Your task to perform on an android device: open sync settings in chrome Image 0: 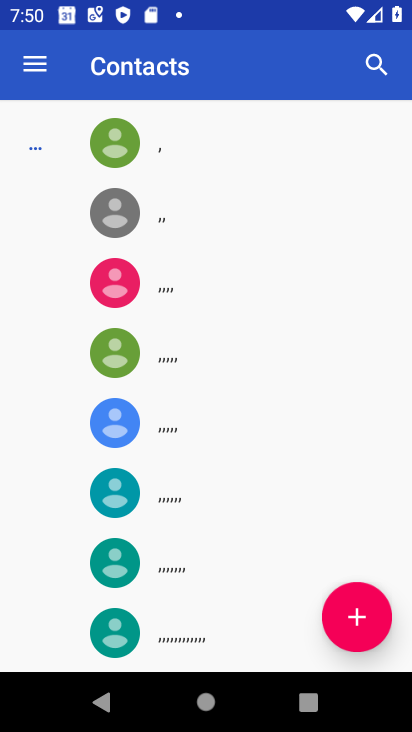
Step 0: press back button
Your task to perform on an android device: open sync settings in chrome Image 1: 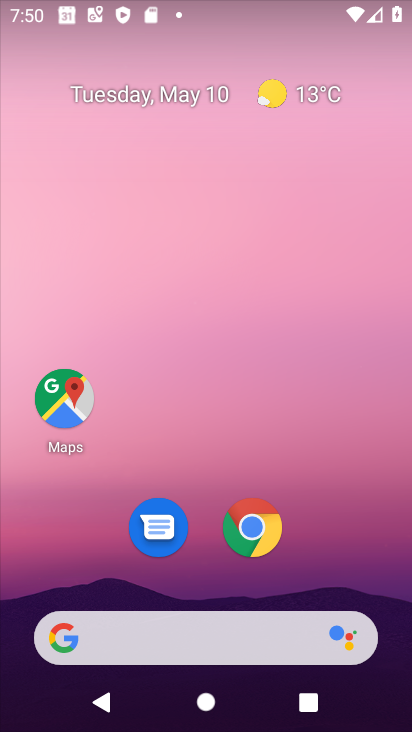
Step 1: click (241, 533)
Your task to perform on an android device: open sync settings in chrome Image 2: 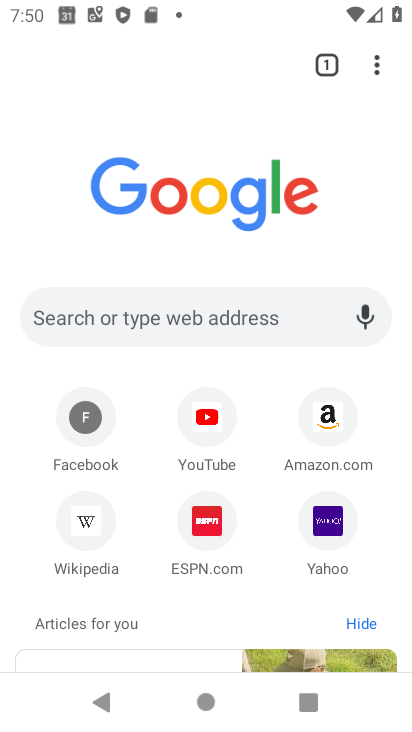
Step 2: click (378, 76)
Your task to perform on an android device: open sync settings in chrome Image 3: 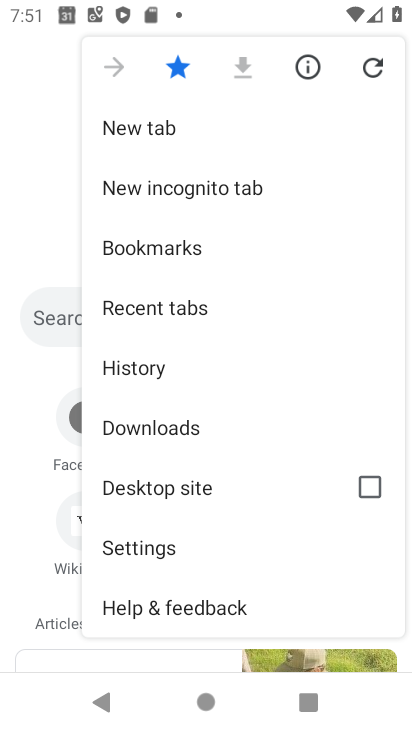
Step 3: click (179, 538)
Your task to perform on an android device: open sync settings in chrome Image 4: 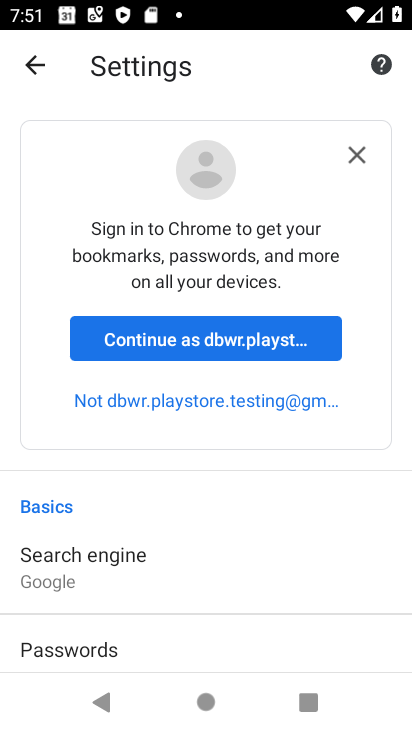
Step 4: click (359, 158)
Your task to perform on an android device: open sync settings in chrome Image 5: 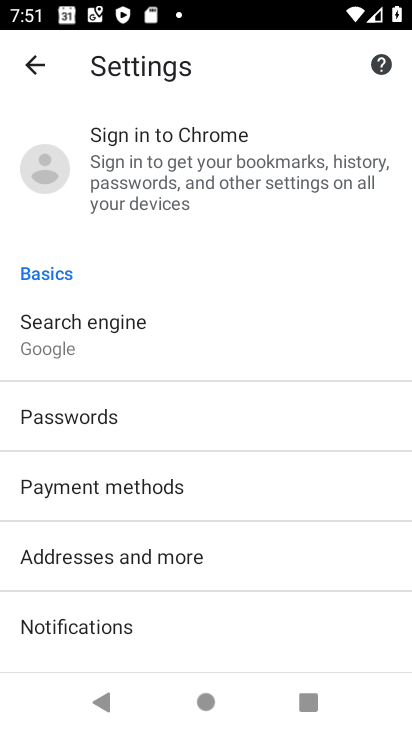
Step 5: drag from (168, 614) to (216, 140)
Your task to perform on an android device: open sync settings in chrome Image 6: 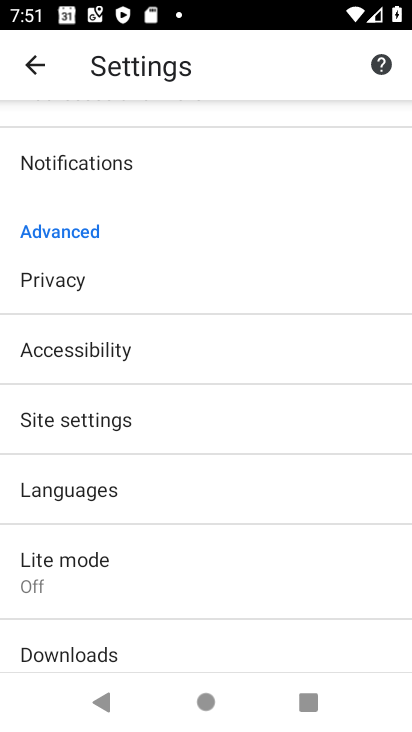
Step 6: drag from (142, 615) to (219, 141)
Your task to perform on an android device: open sync settings in chrome Image 7: 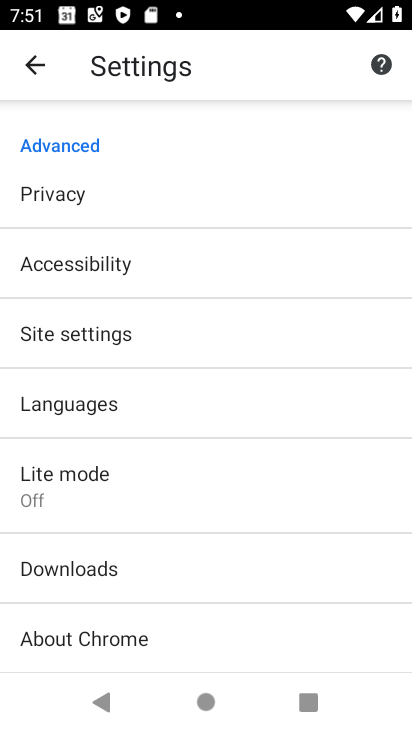
Step 7: click (85, 191)
Your task to perform on an android device: open sync settings in chrome Image 8: 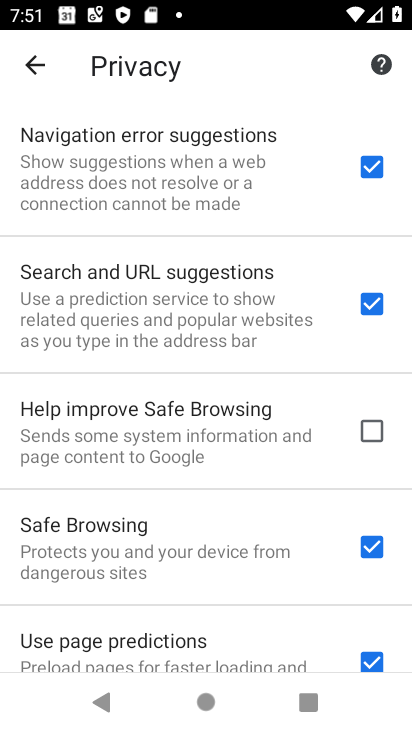
Step 8: drag from (181, 581) to (236, 128)
Your task to perform on an android device: open sync settings in chrome Image 9: 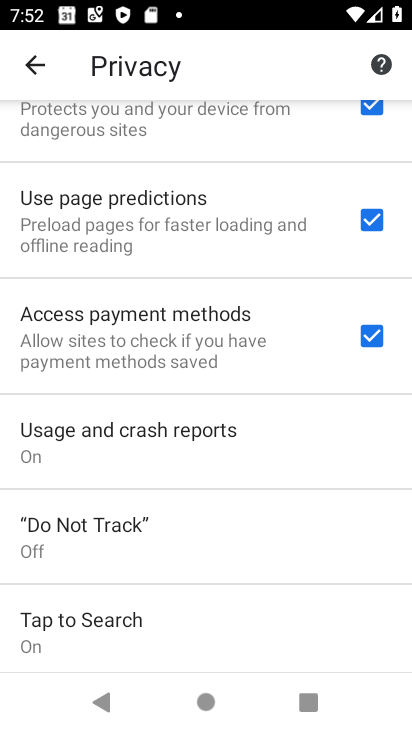
Step 9: drag from (114, 585) to (198, 179)
Your task to perform on an android device: open sync settings in chrome Image 10: 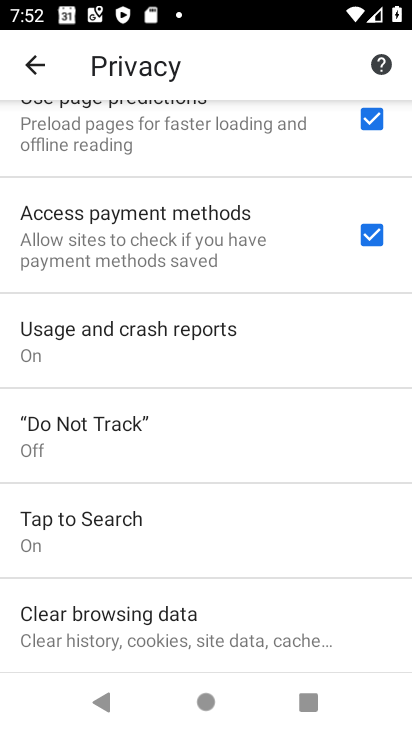
Step 10: drag from (219, 637) to (274, 251)
Your task to perform on an android device: open sync settings in chrome Image 11: 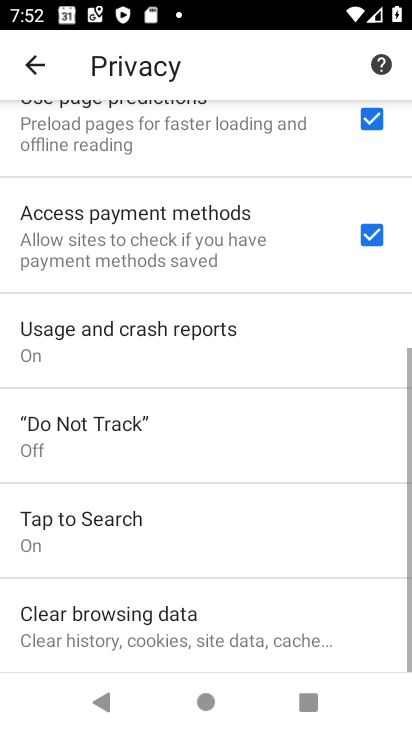
Step 11: press back button
Your task to perform on an android device: open sync settings in chrome Image 12: 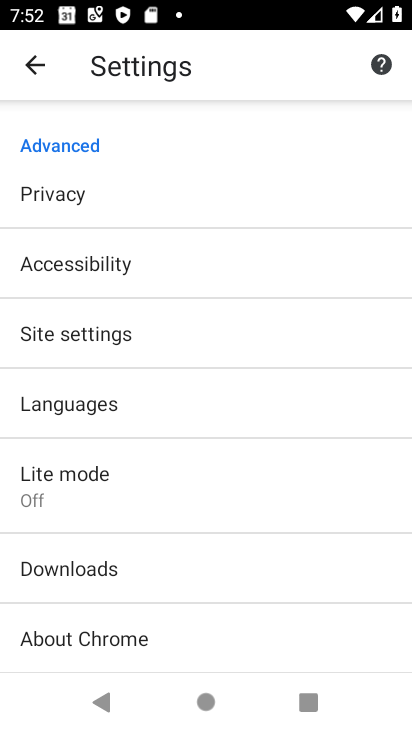
Step 12: click (77, 299)
Your task to perform on an android device: open sync settings in chrome Image 13: 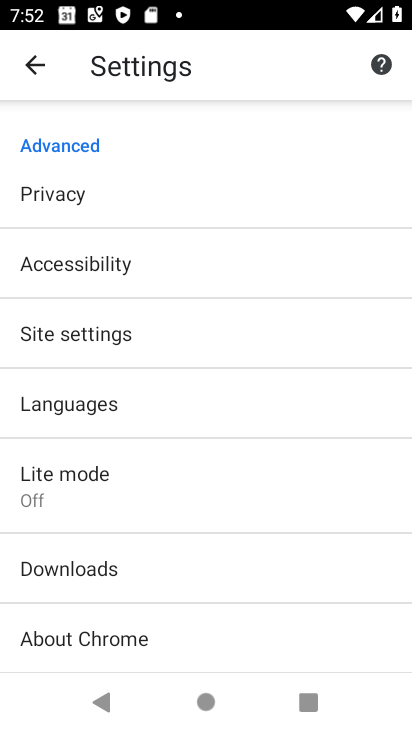
Step 13: click (77, 339)
Your task to perform on an android device: open sync settings in chrome Image 14: 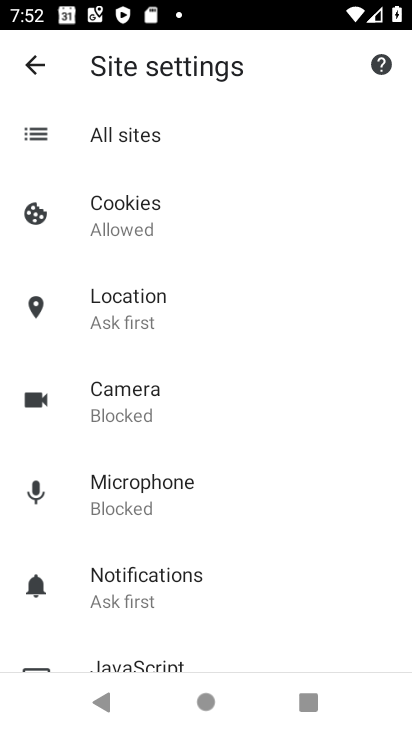
Step 14: task complete